Your task to perform on an android device: Open battery settings Image 0: 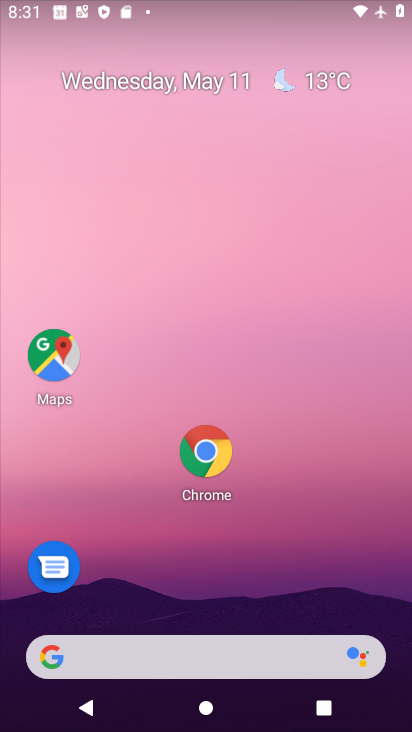
Step 0: drag from (223, 664) to (363, 57)
Your task to perform on an android device: Open battery settings Image 1: 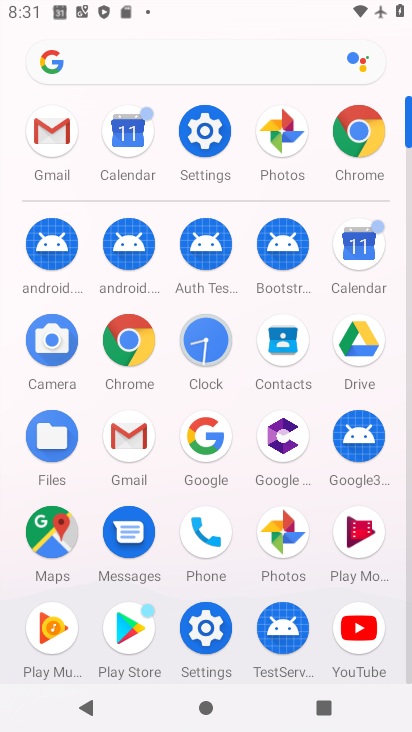
Step 1: click (206, 133)
Your task to perform on an android device: Open battery settings Image 2: 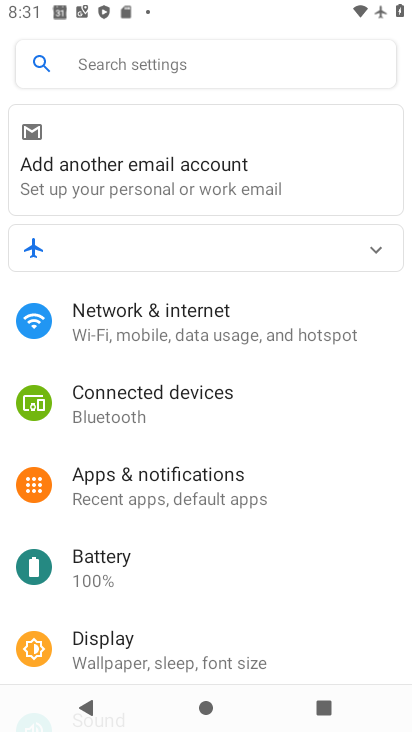
Step 2: click (114, 564)
Your task to perform on an android device: Open battery settings Image 3: 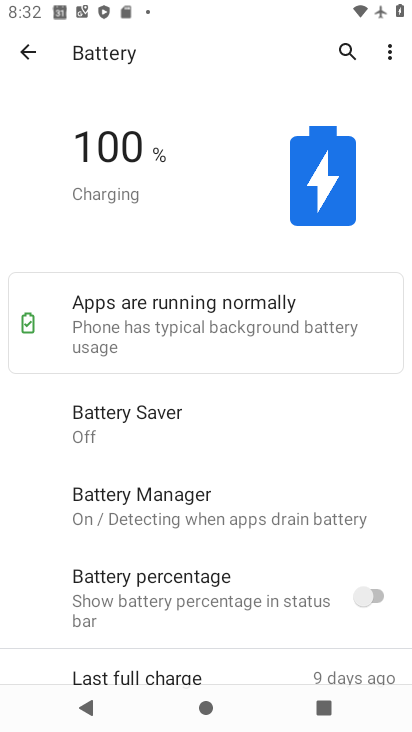
Step 3: task complete